Your task to perform on an android device: remove spam from my inbox in the gmail app Image 0: 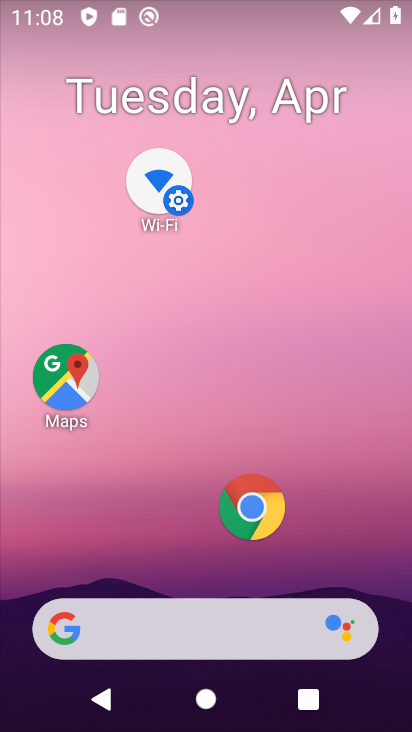
Step 0: drag from (55, 518) to (246, 200)
Your task to perform on an android device: remove spam from my inbox in the gmail app Image 1: 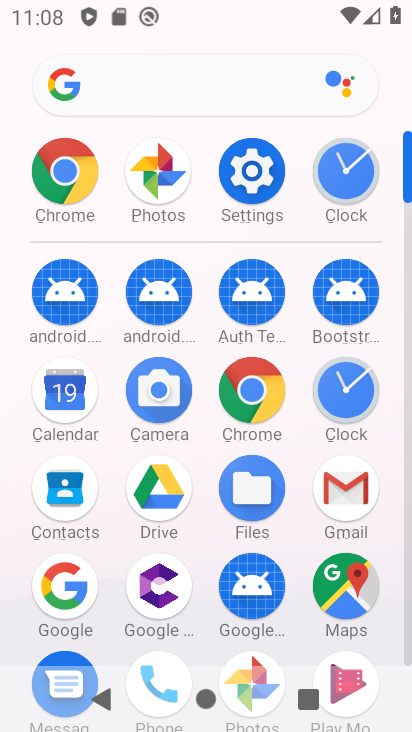
Step 1: click (350, 485)
Your task to perform on an android device: remove spam from my inbox in the gmail app Image 2: 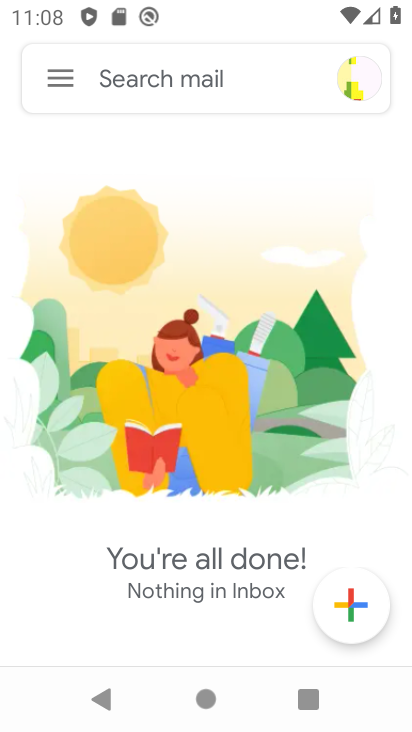
Step 2: click (70, 76)
Your task to perform on an android device: remove spam from my inbox in the gmail app Image 3: 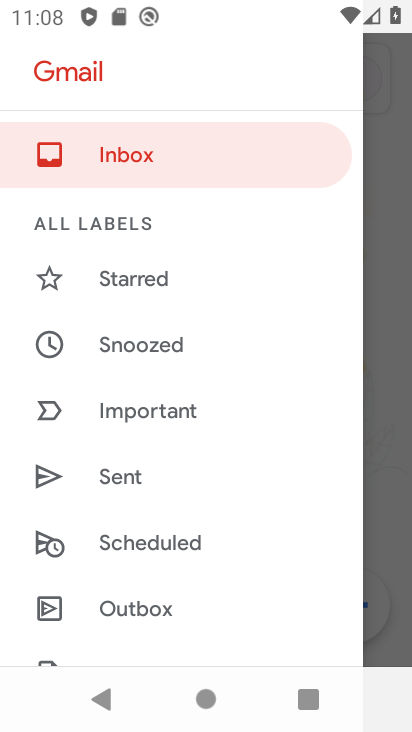
Step 3: click (165, 154)
Your task to perform on an android device: remove spam from my inbox in the gmail app Image 4: 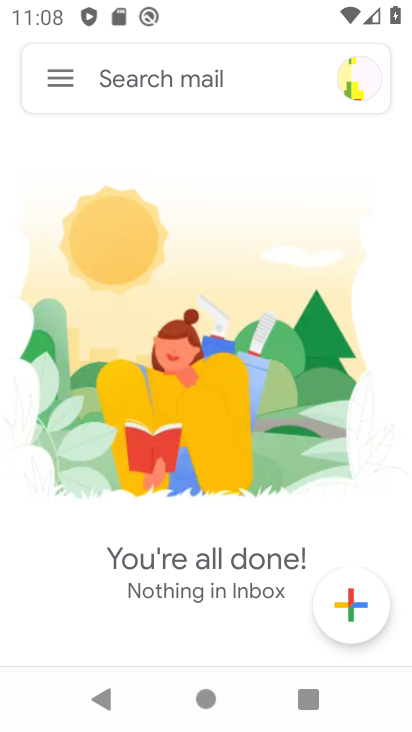
Step 4: task complete